Your task to perform on an android device: open app "eBay: The shopping marketplace" (install if not already installed) and enter user name: "articulated@icloud.com" and password: "excluding" Image 0: 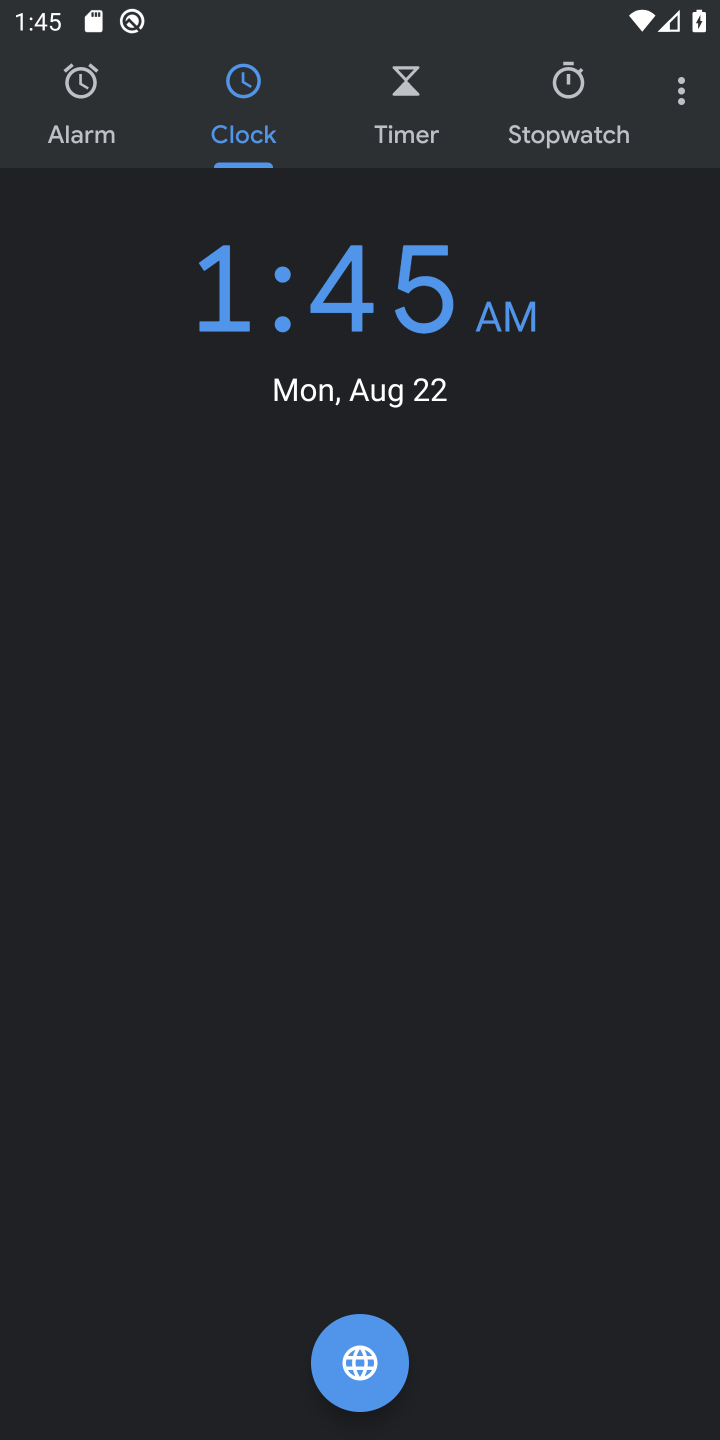
Step 0: press home button
Your task to perform on an android device: open app "eBay: The shopping marketplace" (install if not already installed) and enter user name: "articulated@icloud.com" and password: "excluding" Image 1: 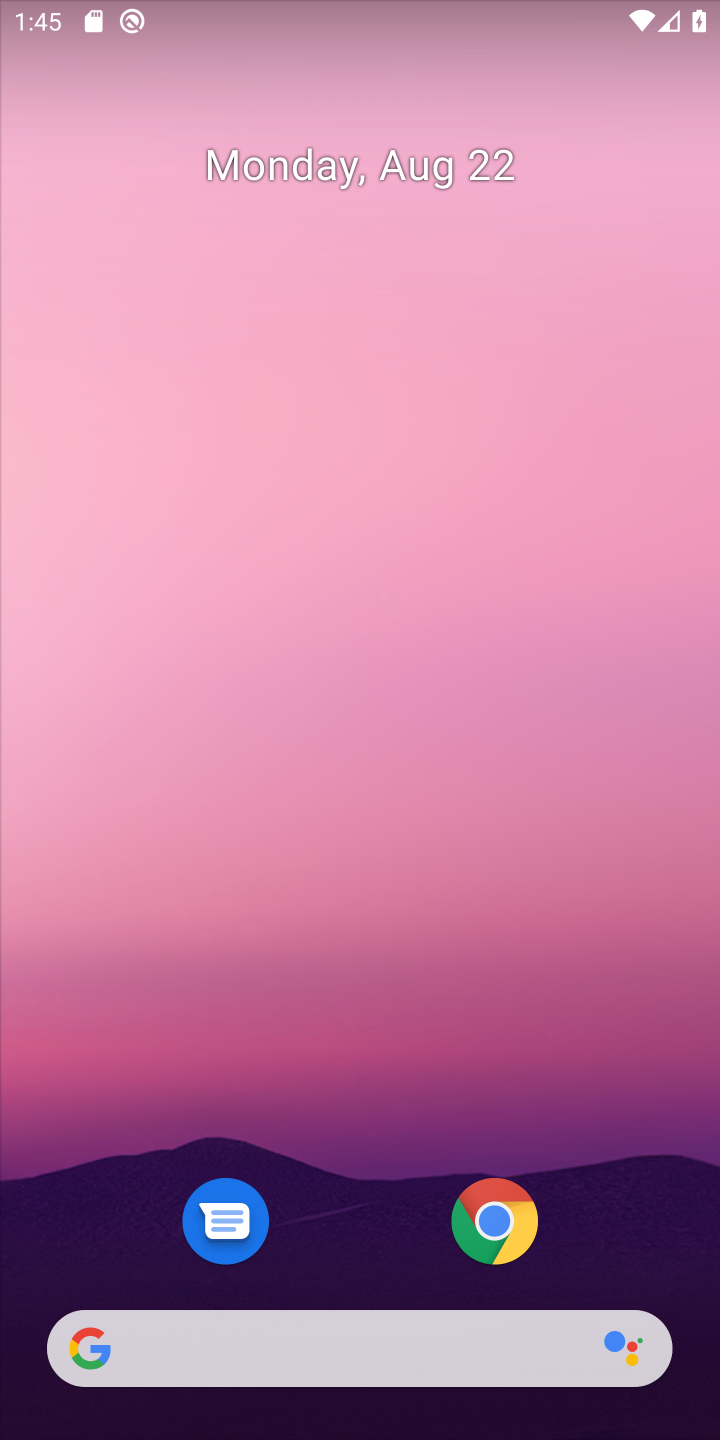
Step 1: drag from (370, 1247) to (373, 141)
Your task to perform on an android device: open app "eBay: The shopping marketplace" (install if not already installed) and enter user name: "articulated@icloud.com" and password: "excluding" Image 2: 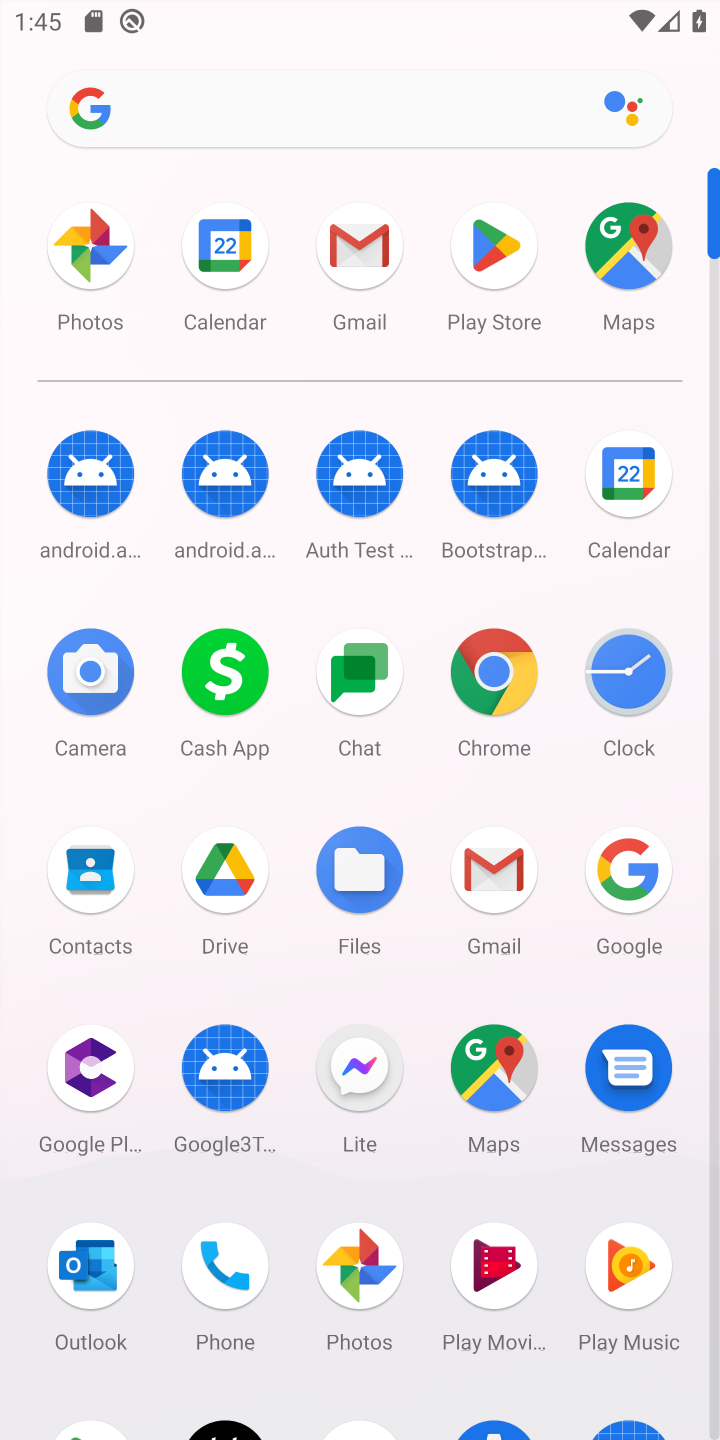
Step 2: click (491, 236)
Your task to perform on an android device: open app "eBay: The shopping marketplace" (install if not already installed) and enter user name: "articulated@icloud.com" and password: "excluding" Image 3: 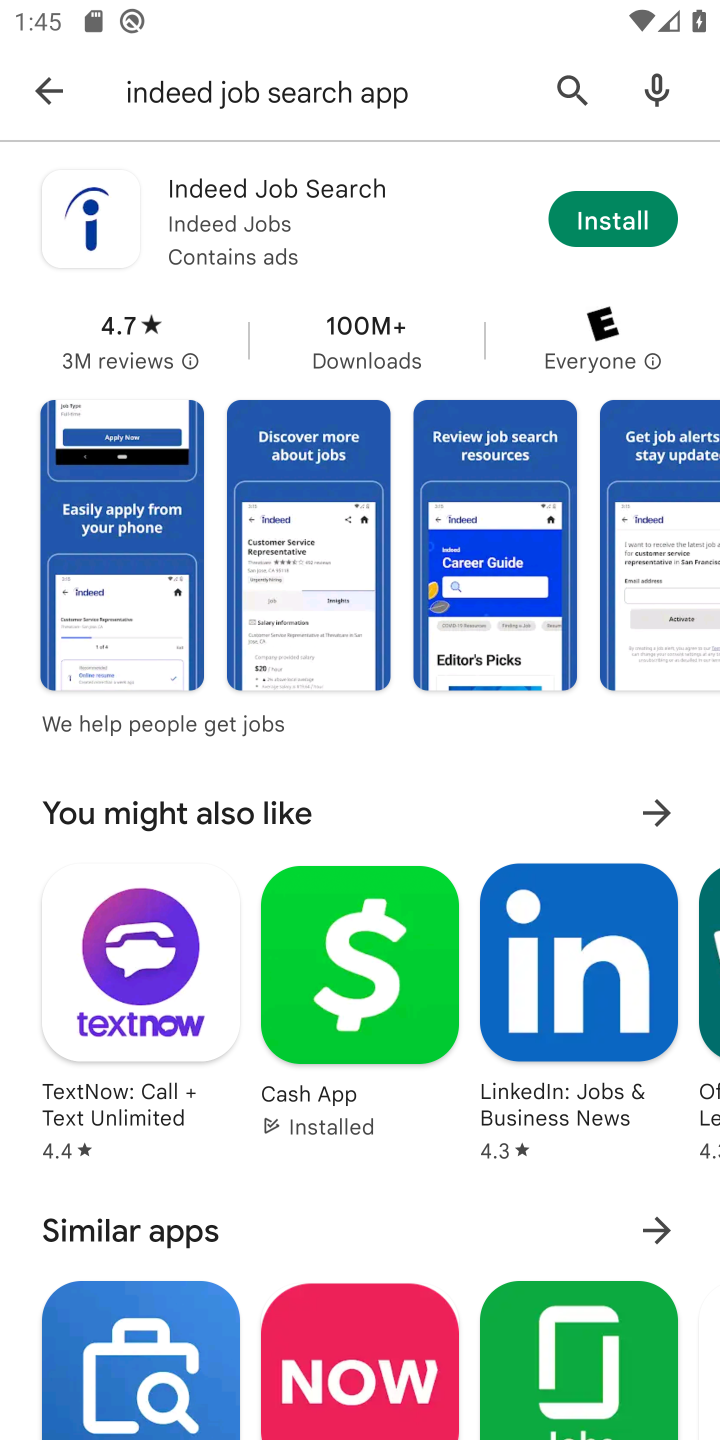
Step 3: click (562, 93)
Your task to perform on an android device: open app "eBay: The shopping marketplace" (install if not already installed) and enter user name: "articulated@icloud.com" and password: "excluding" Image 4: 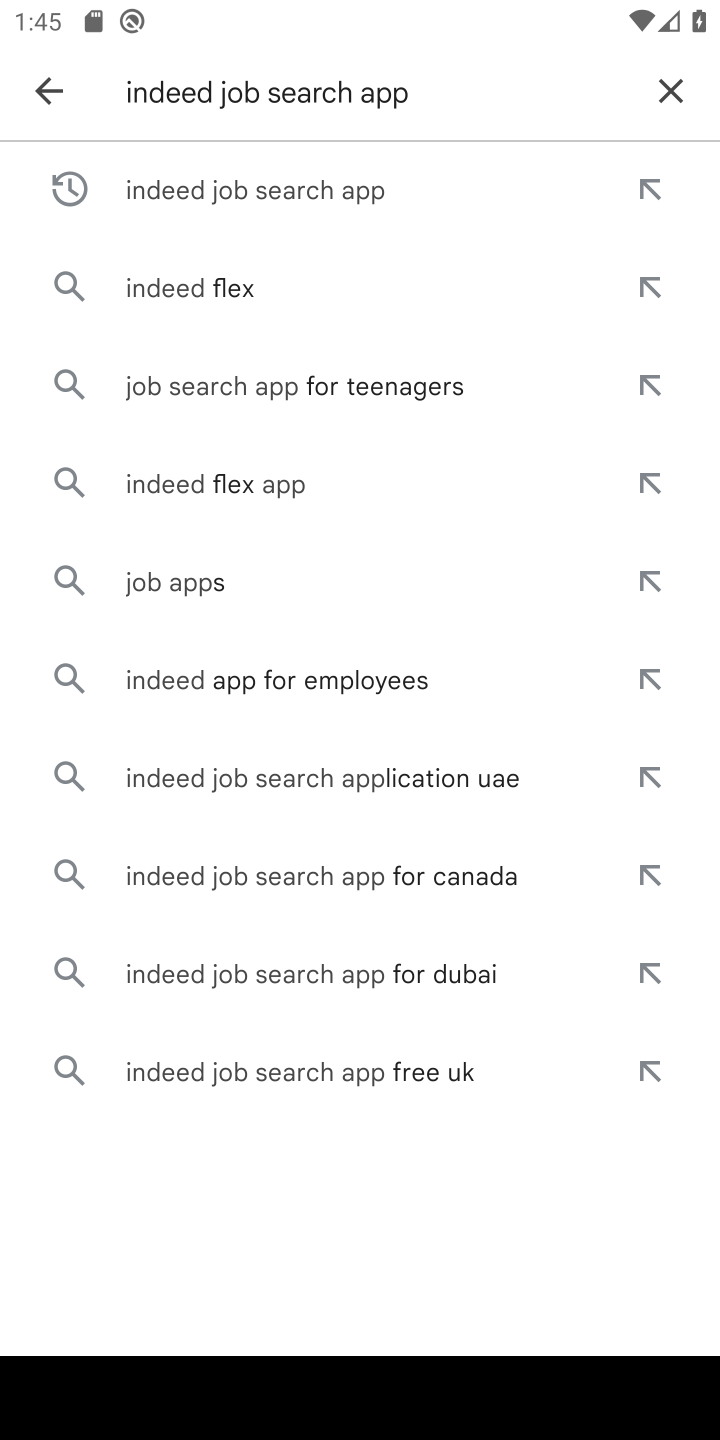
Step 4: click (667, 96)
Your task to perform on an android device: open app "eBay: The shopping marketplace" (install if not already installed) and enter user name: "articulated@icloud.com" and password: "excluding" Image 5: 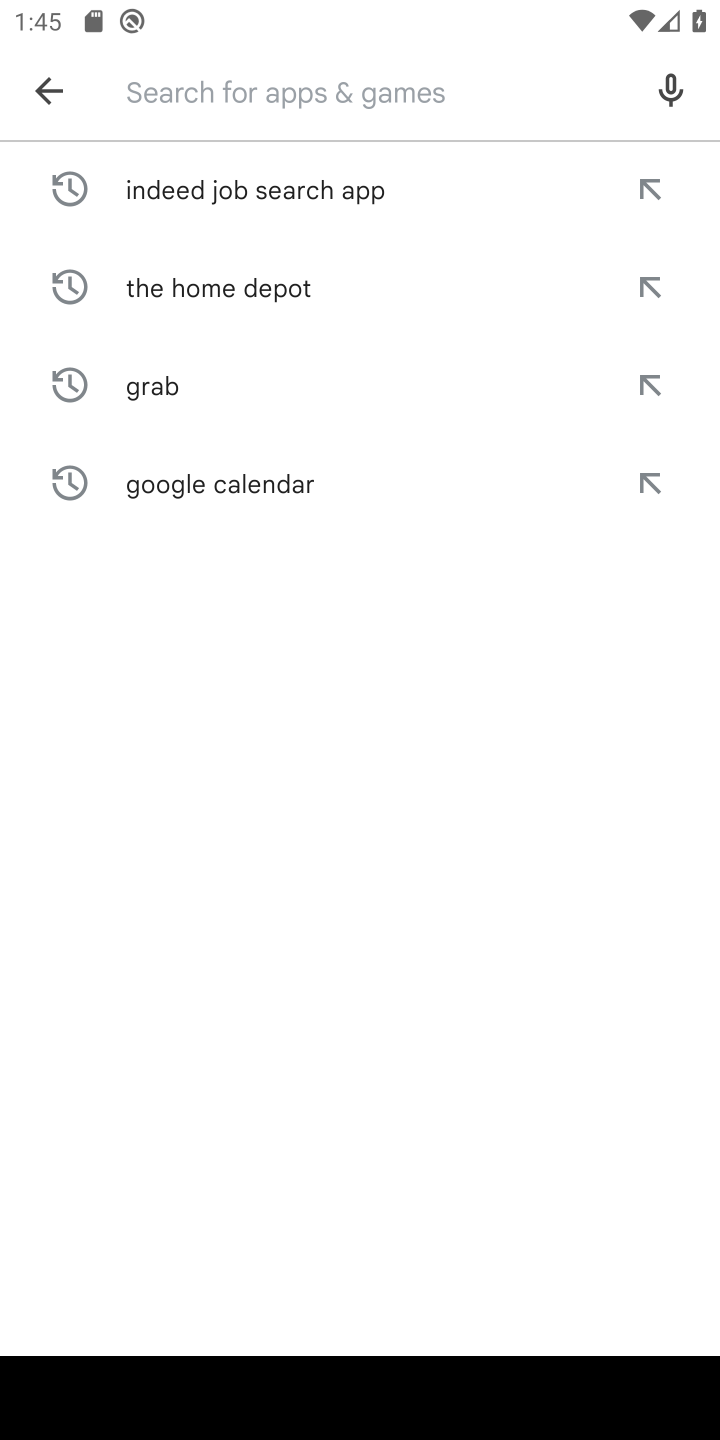
Step 5: type "eBay: The shopping marketplace"
Your task to perform on an android device: open app "eBay: The shopping marketplace" (install if not already installed) and enter user name: "articulated@icloud.com" and password: "excluding" Image 6: 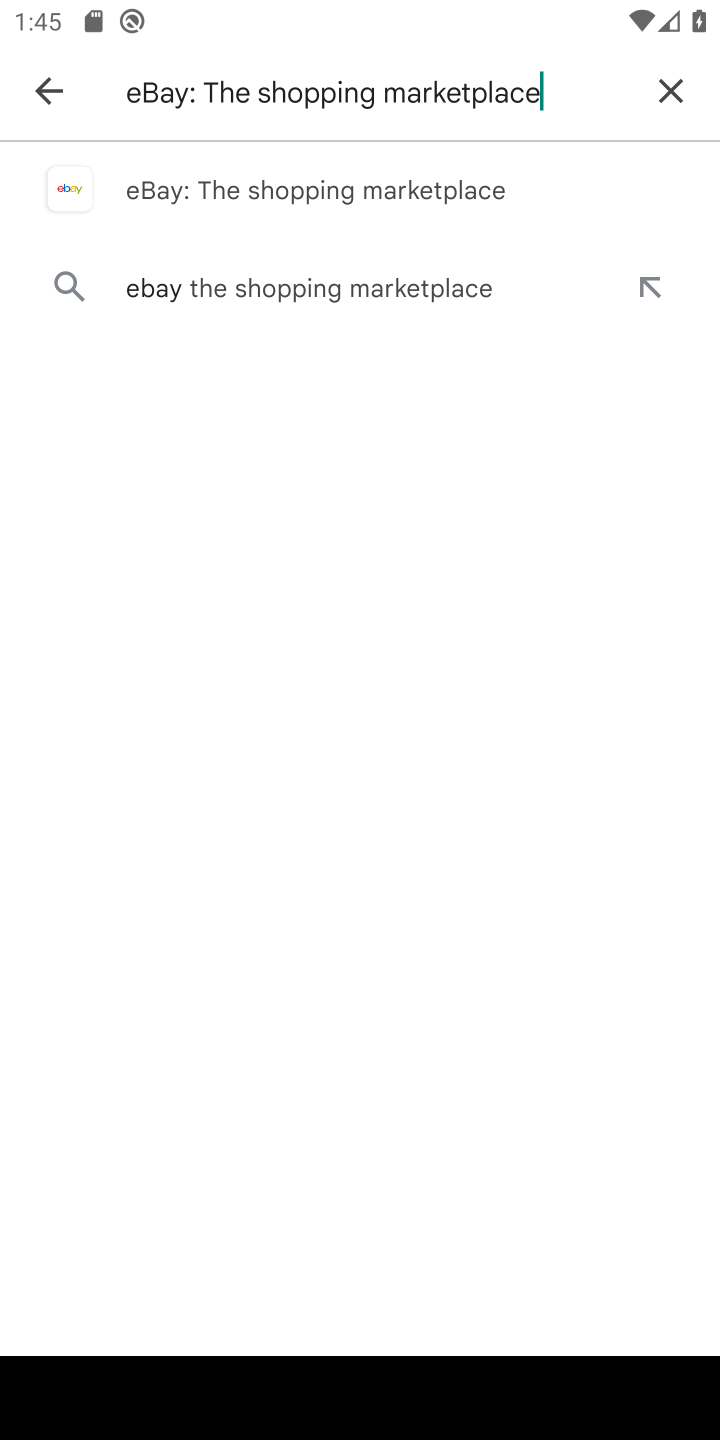
Step 6: click (363, 187)
Your task to perform on an android device: open app "eBay: The shopping marketplace" (install if not already installed) and enter user name: "articulated@icloud.com" and password: "excluding" Image 7: 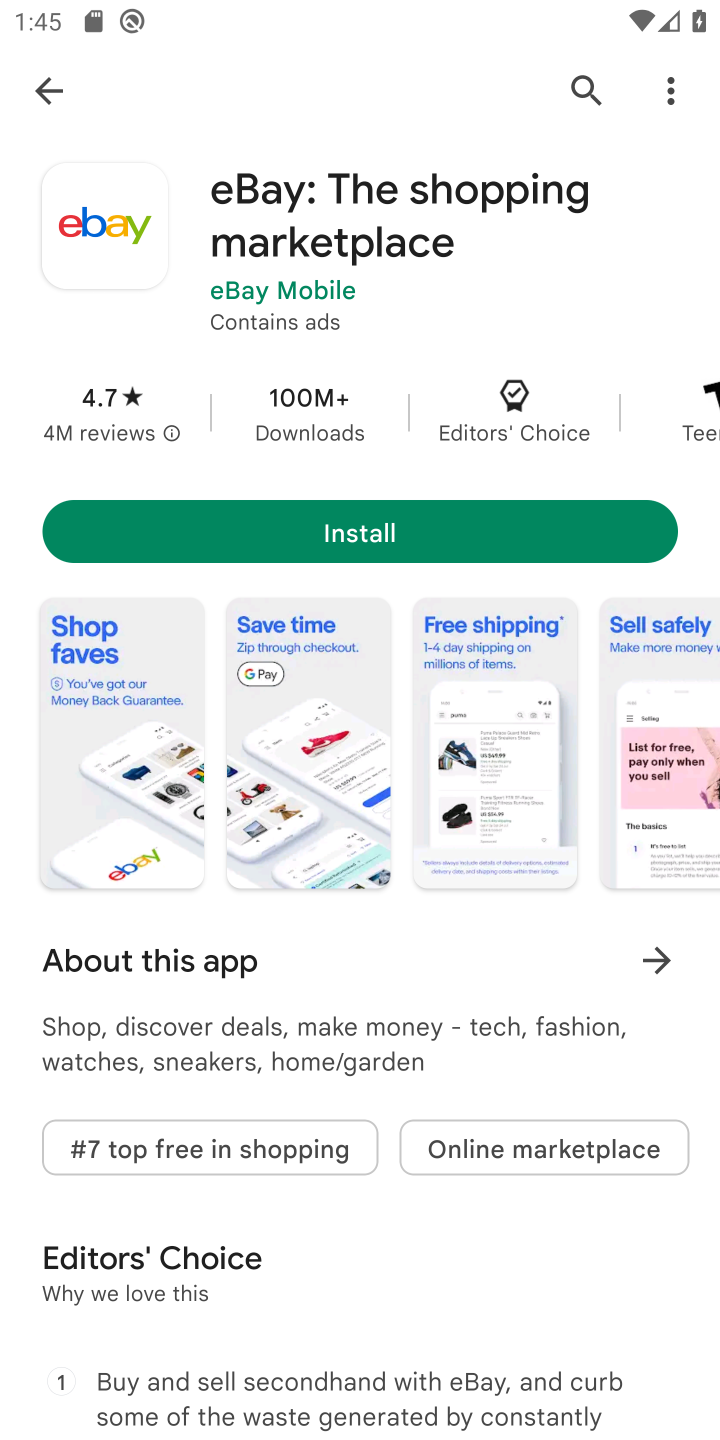
Step 7: click (363, 518)
Your task to perform on an android device: open app "eBay: The shopping marketplace" (install if not already installed) and enter user name: "articulated@icloud.com" and password: "excluding" Image 8: 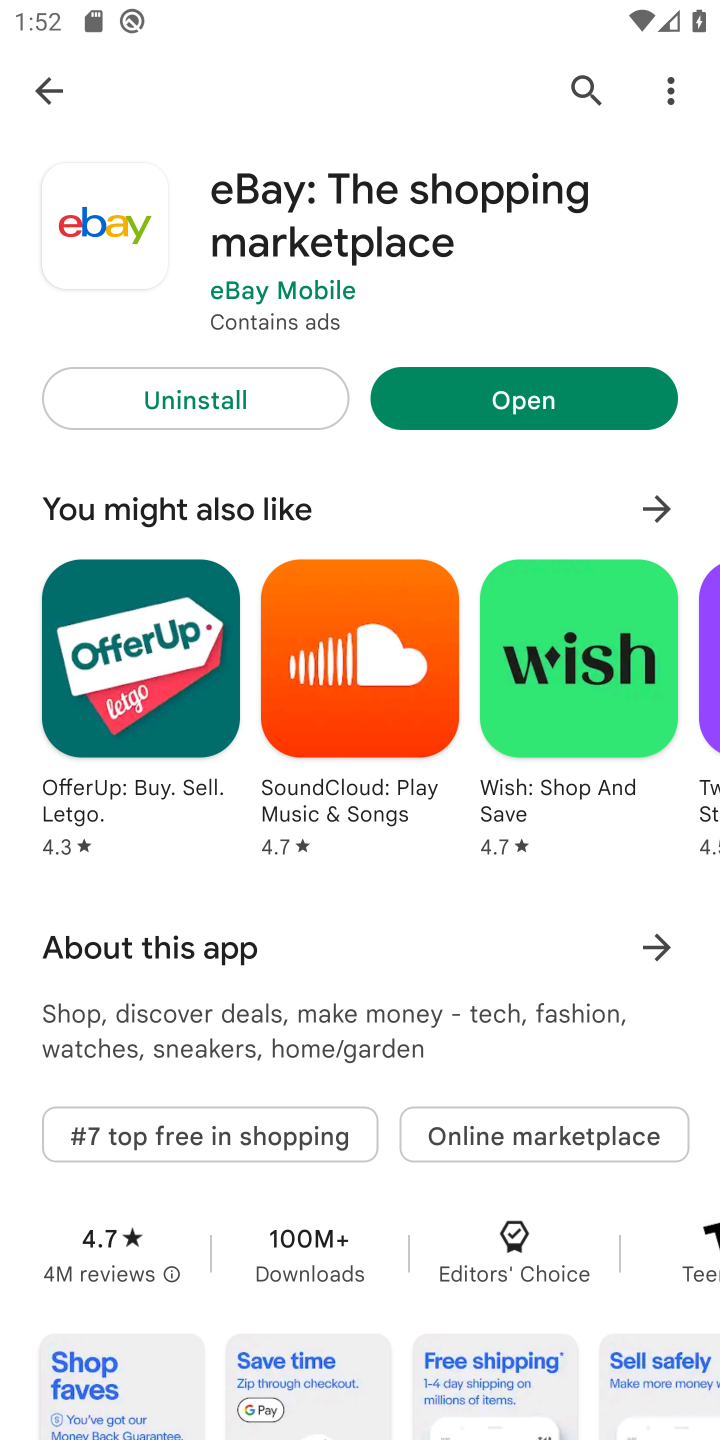
Step 8: click (559, 410)
Your task to perform on an android device: open app "eBay: The shopping marketplace" (install if not already installed) and enter user name: "articulated@icloud.com" and password: "excluding" Image 9: 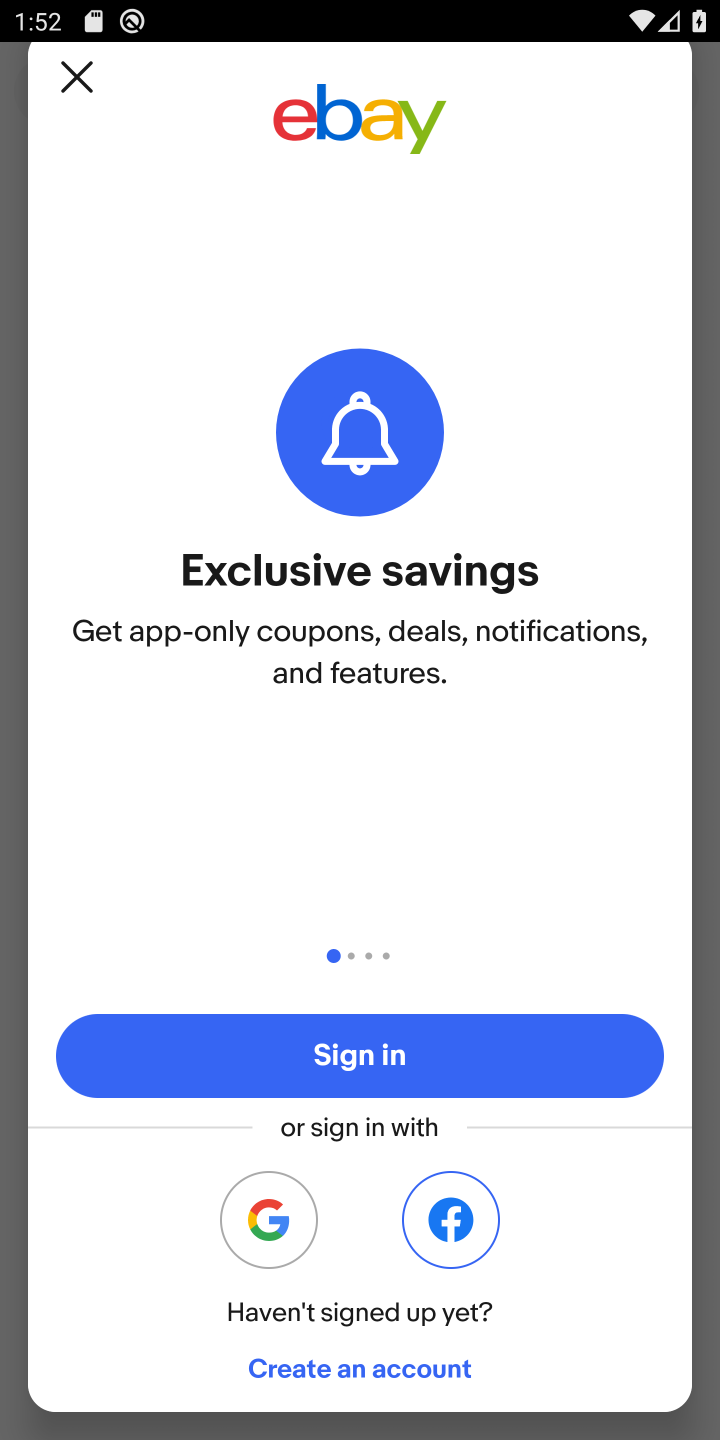
Step 9: click (376, 1036)
Your task to perform on an android device: open app "eBay: The shopping marketplace" (install if not already installed) and enter user name: "articulated@icloud.com" and password: "excluding" Image 10: 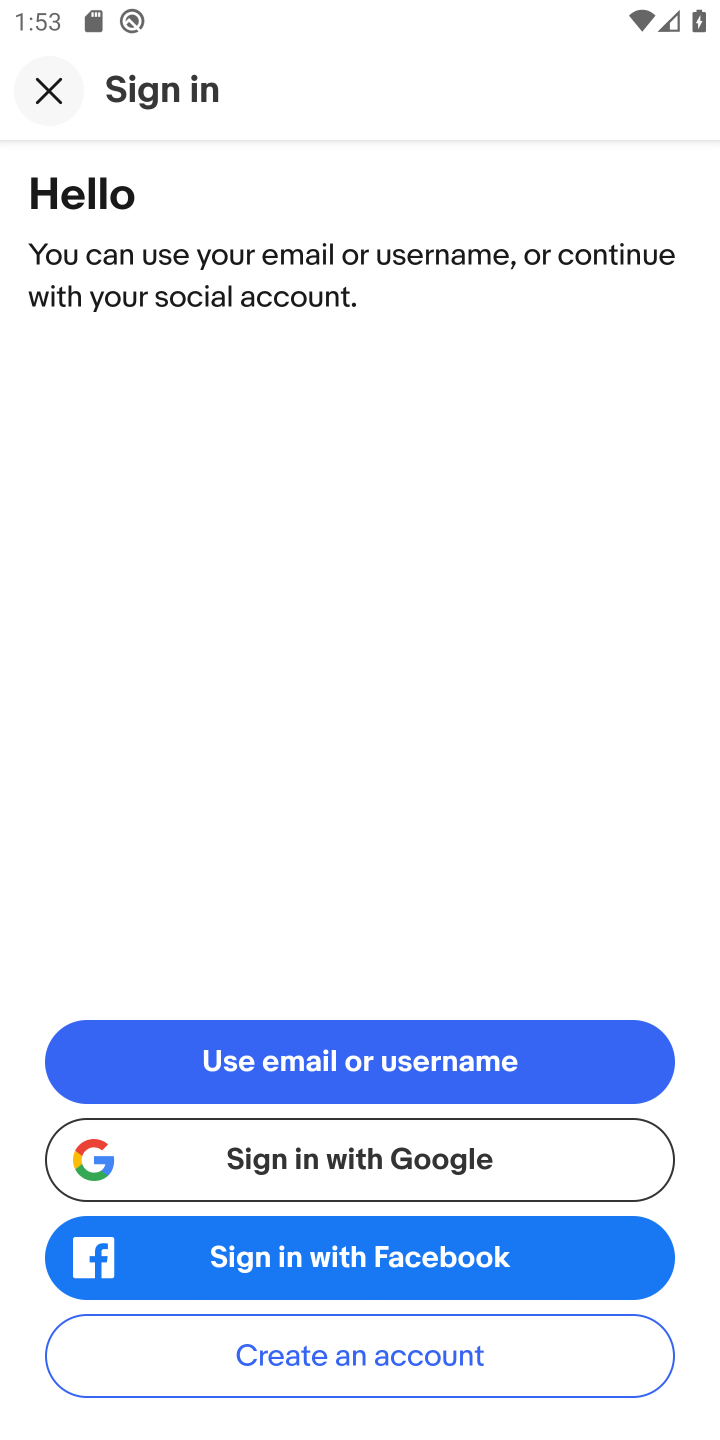
Step 10: click (371, 1052)
Your task to perform on an android device: open app "eBay: The shopping marketplace" (install if not already installed) and enter user name: "articulated@icloud.com" and password: "excluding" Image 11: 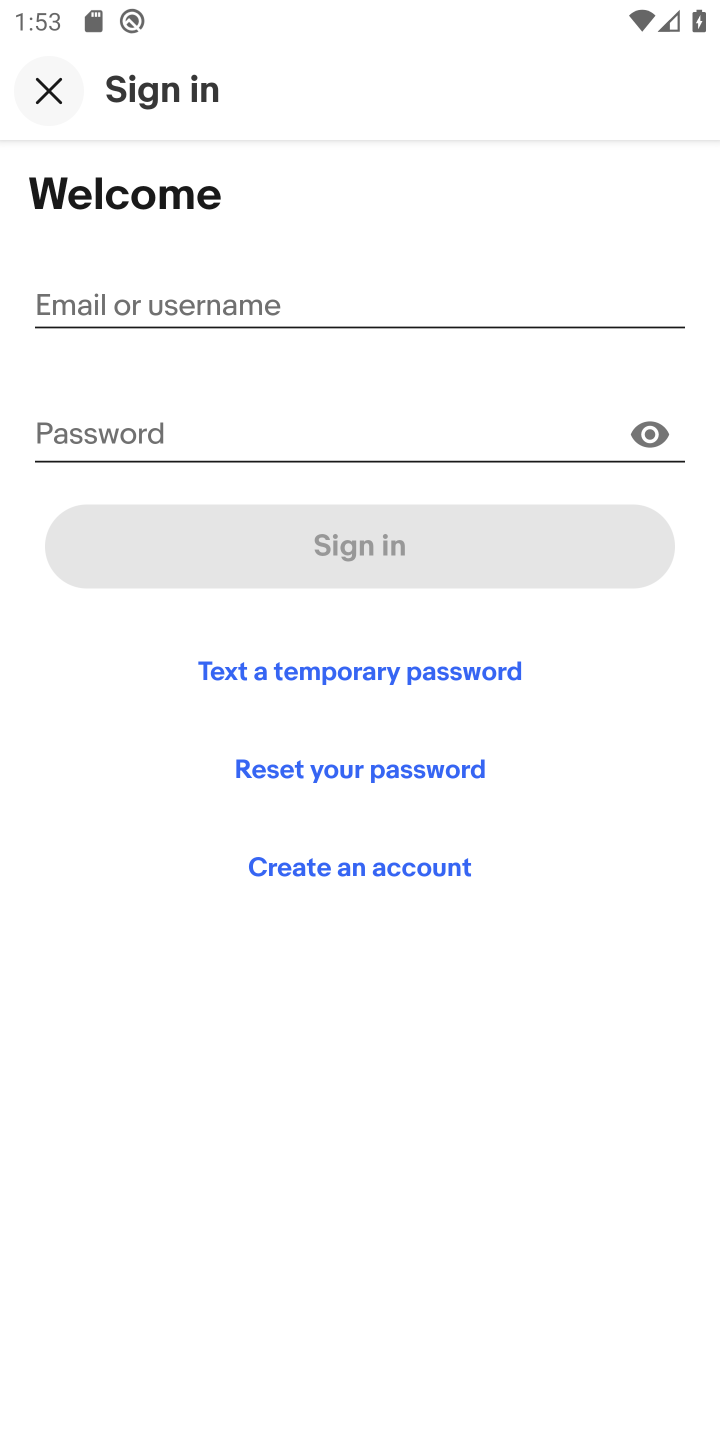
Step 11: click (176, 278)
Your task to perform on an android device: open app "eBay: The shopping marketplace" (install if not already installed) and enter user name: "articulated@icloud.com" and password: "excluding" Image 12: 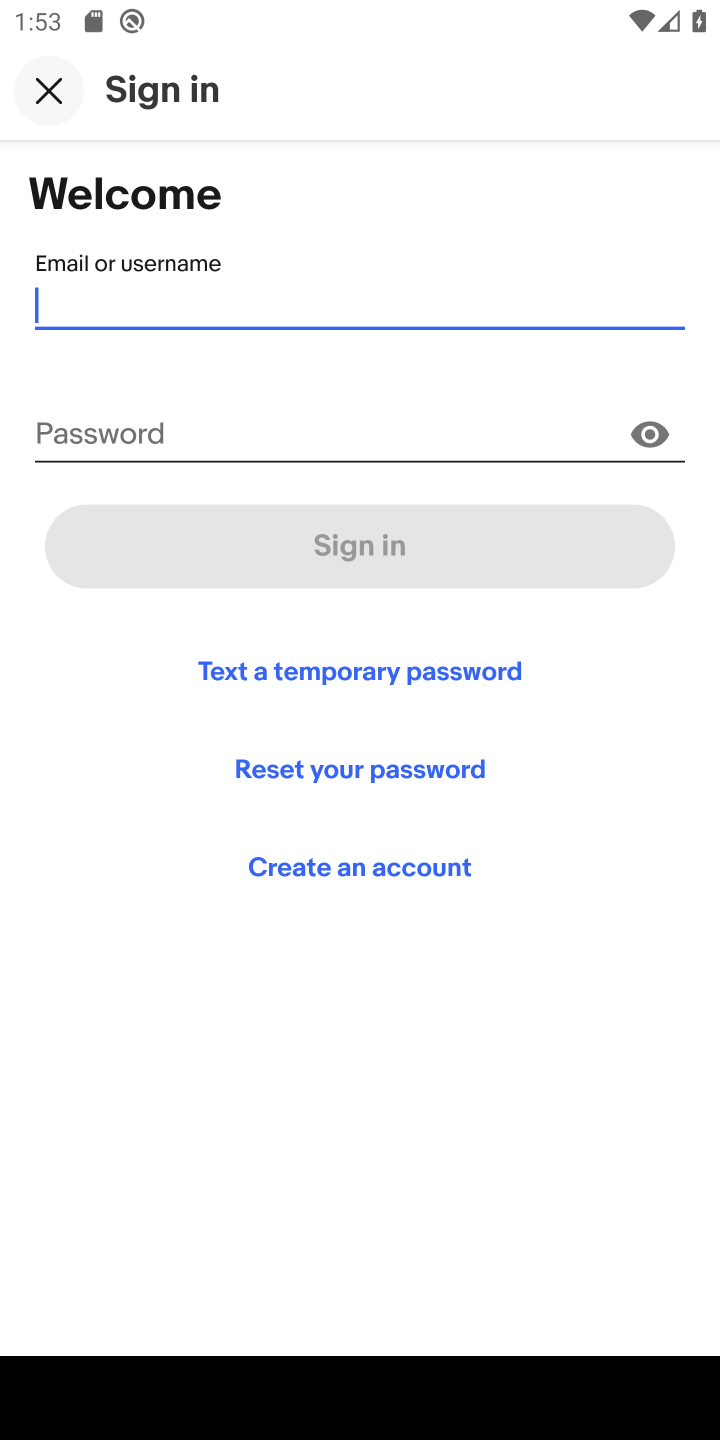
Step 12: type "articulated@icloud.com"
Your task to perform on an android device: open app "eBay: The shopping marketplace" (install if not already installed) and enter user name: "articulated@icloud.com" and password: "excluding" Image 13: 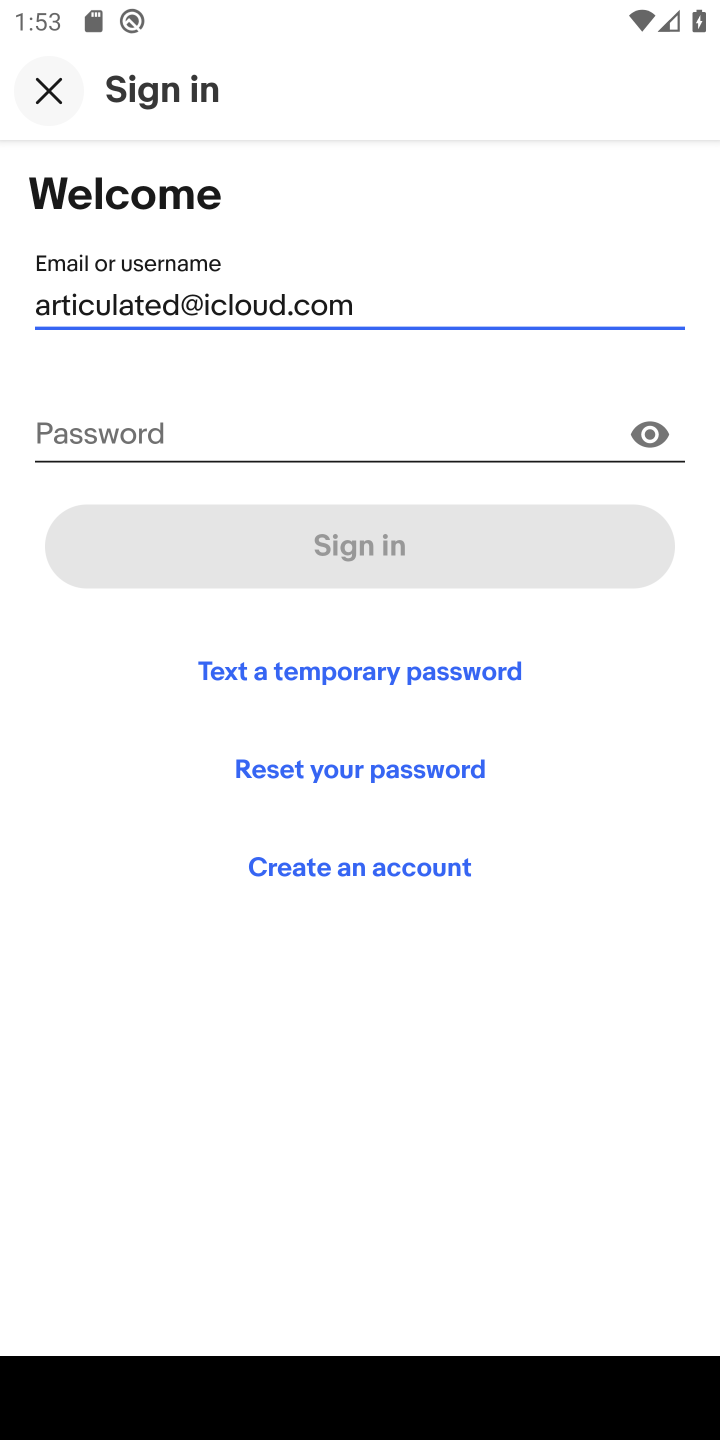
Step 13: click (131, 423)
Your task to perform on an android device: open app "eBay: The shopping marketplace" (install if not already installed) and enter user name: "articulated@icloud.com" and password: "excluding" Image 14: 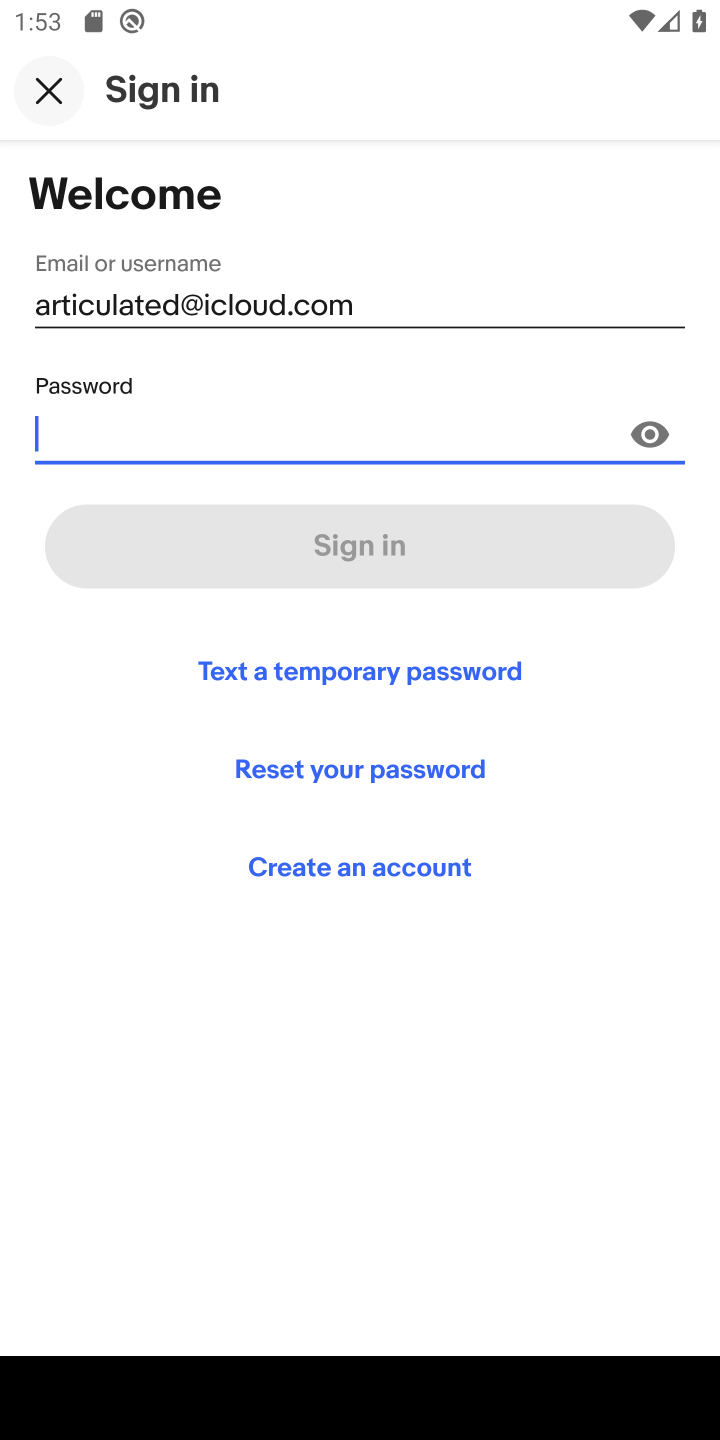
Step 14: type "excluding"
Your task to perform on an android device: open app "eBay: The shopping marketplace" (install if not already installed) and enter user name: "articulated@icloud.com" and password: "excluding" Image 15: 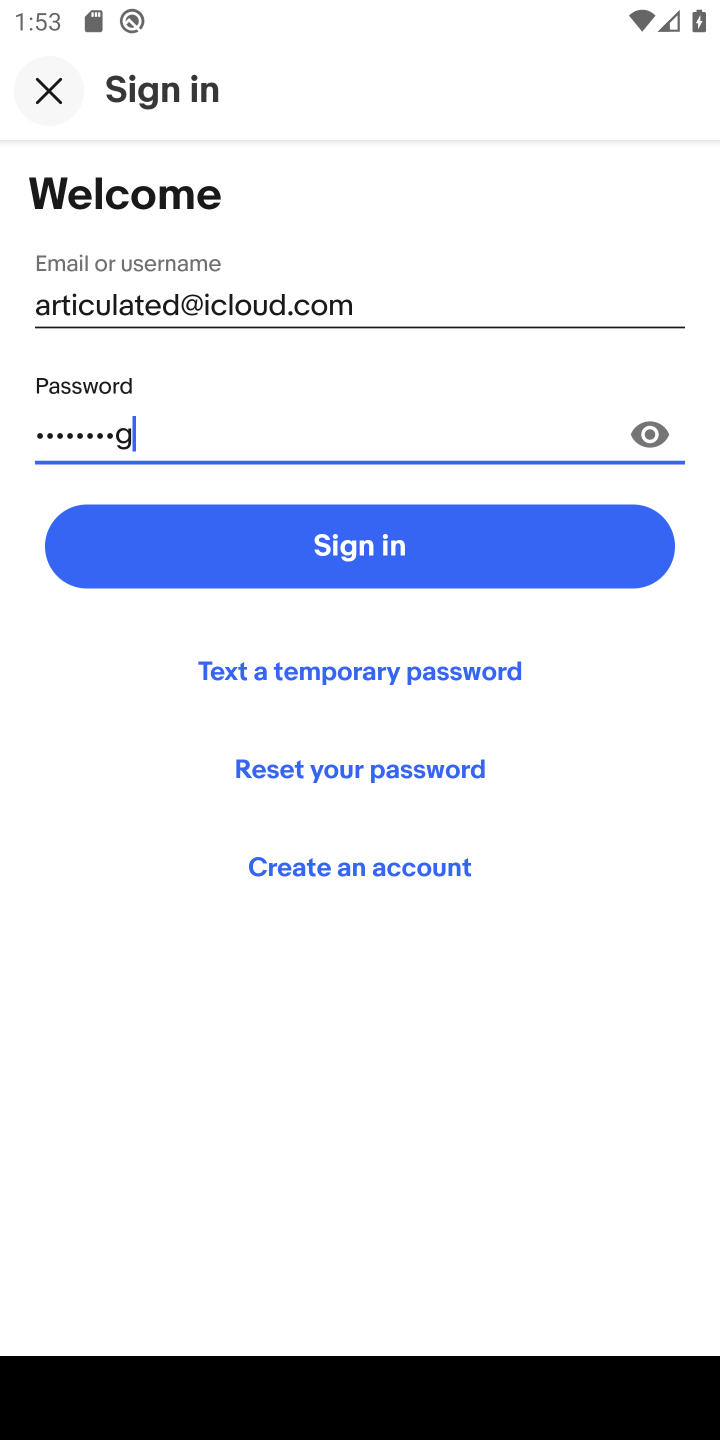
Step 15: type ""
Your task to perform on an android device: open app "eBay: The shopping marketplace" (install if not already installed) and enter user name: "articulated@icloud.com" and password: "excluding" Image 16: 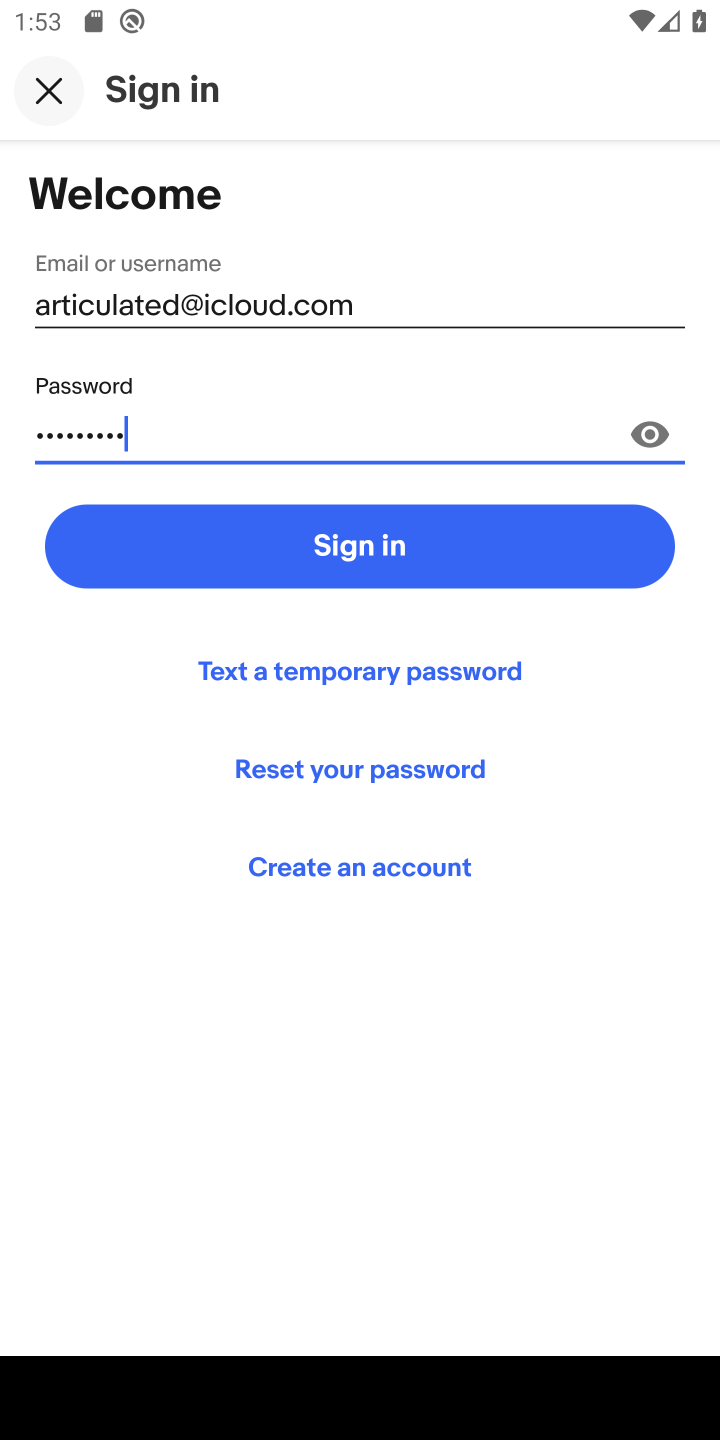
Step 16: click (376, 562)
Your task to perform on an android device: open app "eBay: The shopping marketplace" (install if not already installed) and enter user name: "articulated@icloud.com" and password: "excluding" Image 17: 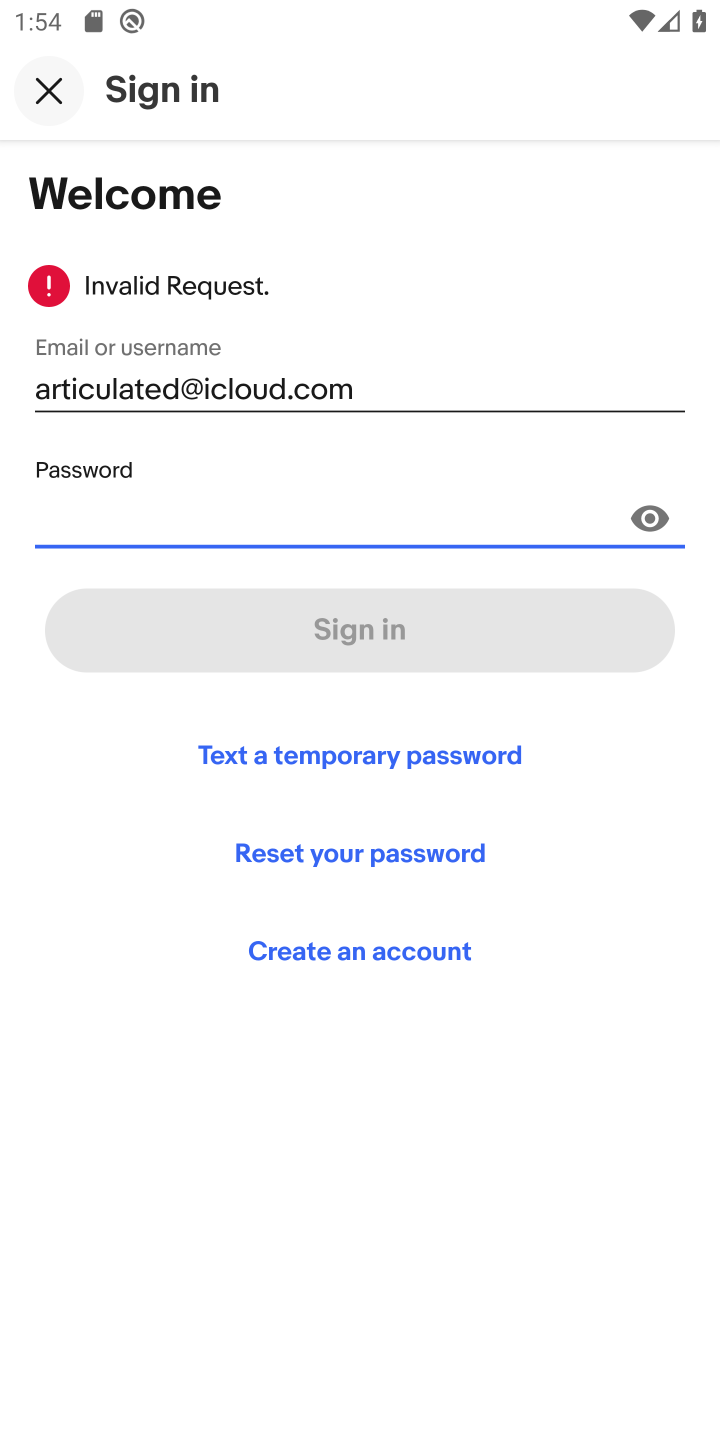
Step 17: task complete